Your task to perform on an android device: change the clock display to digital Image 0: 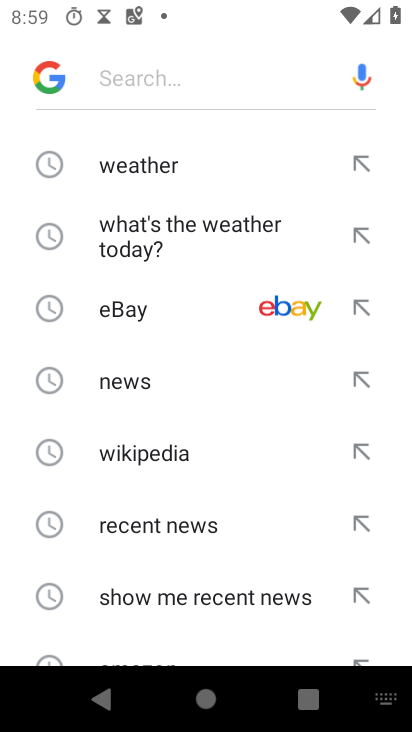
Step 0: press home button
Your task to perform on an android device: change the clock display to digital Image 1: 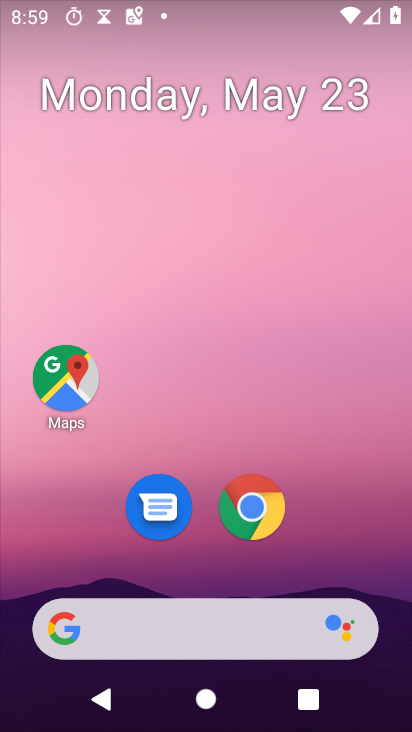
Step 1: drag from (347, 551) to (323, 55)
Your task to perform on an android device: change the clock display to digital Image 2: 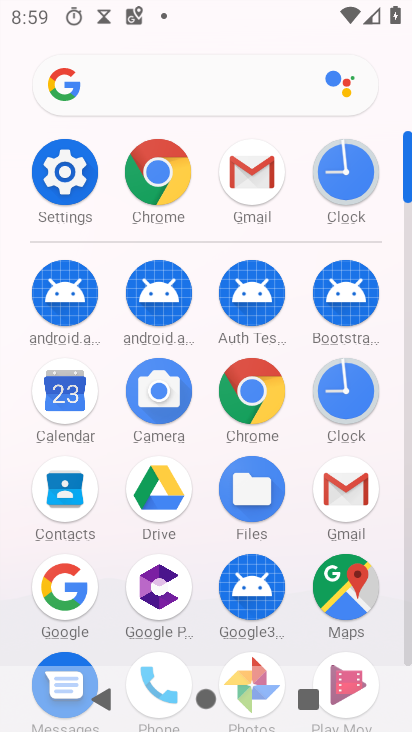
Step 2: click (352, 371)
Your task to perform on an android device: change the clock display to digital Image 3: 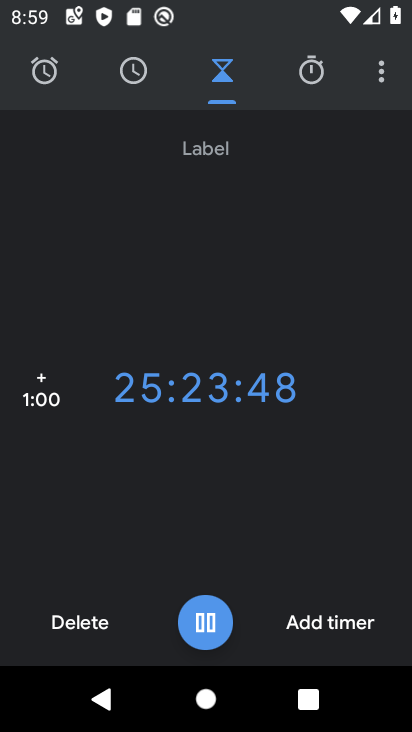
Step 3: click (367, 86)
Your task to perform on an android device: change the clock display to digital Image 4: 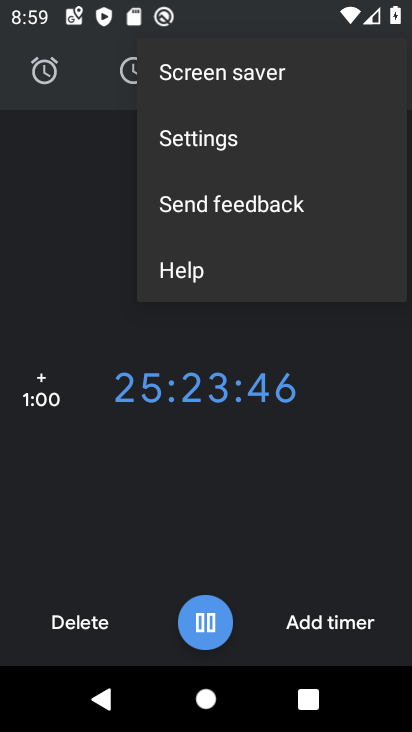
Step 4: click (186, 152)
Your task to perform on an android device: change the clock display to digital Image 5: 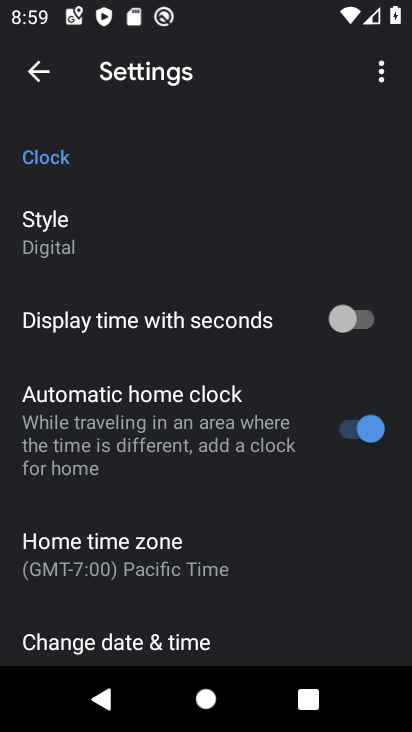
Step 5: click (58, 242)
Your task to perform on an android device: change the clock display to digital Image 6: 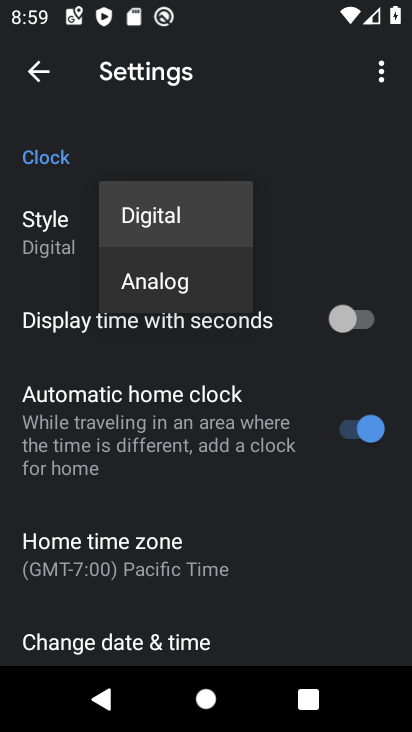
Step 6: task complete